Your task to perform on an android device: turn off smart reply in the gmail app Image 0: 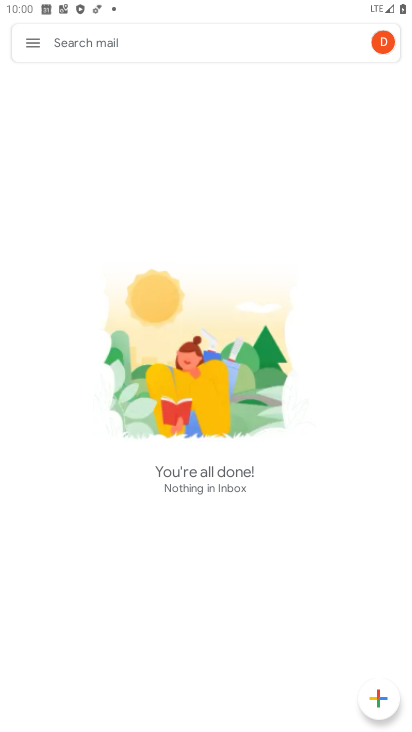
Step 0: click (36, 39)
Your task to perform on an android device: turn off smart reply in the gmail app Image 1: 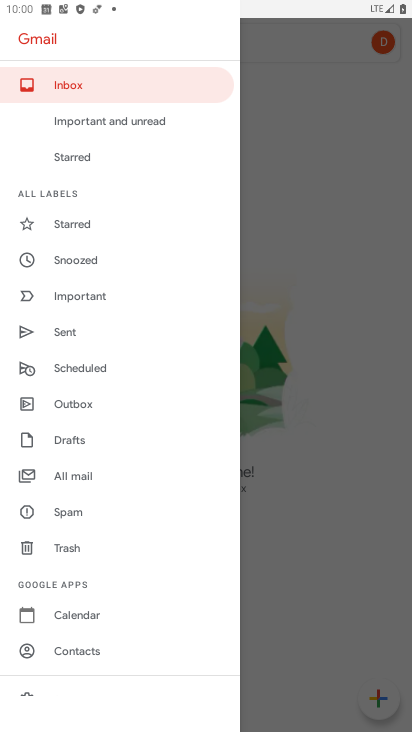
Step 1: drag from (78, 648) to (58, 294)
Your task to perform on an android device: turn off smart reply in the gmail app Image 2: 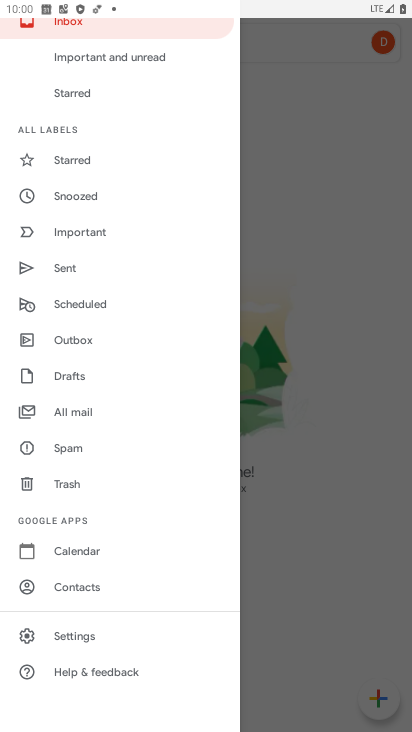
Step 2: click (45, 621)
Your task to perform on an android device: turn off smart reply in the gmail app Image 3: 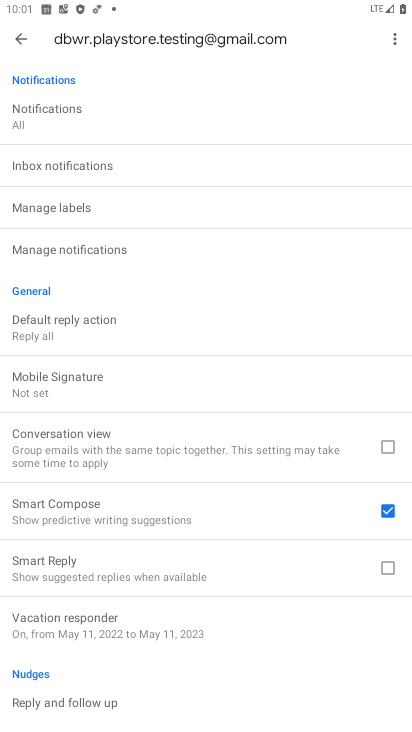
Step 3: task complete